Your task to perform on an android device: toggle show notifications on the lock screen Image 0: 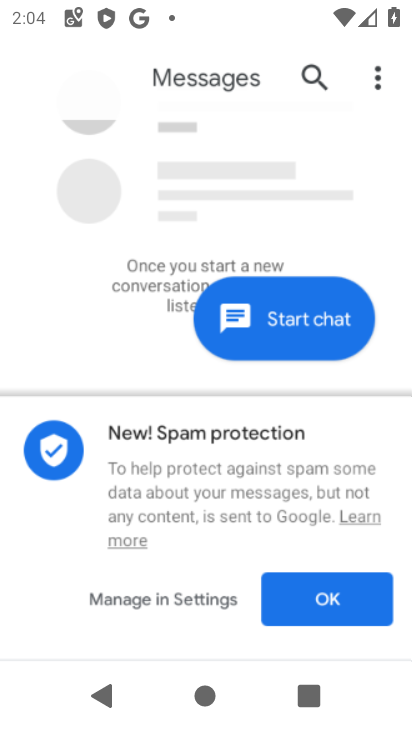
Step 0: drag from (243, 582) to (250, 234)
Your task to perform on an android device: toggle show notifications on the lock screen Image 1: 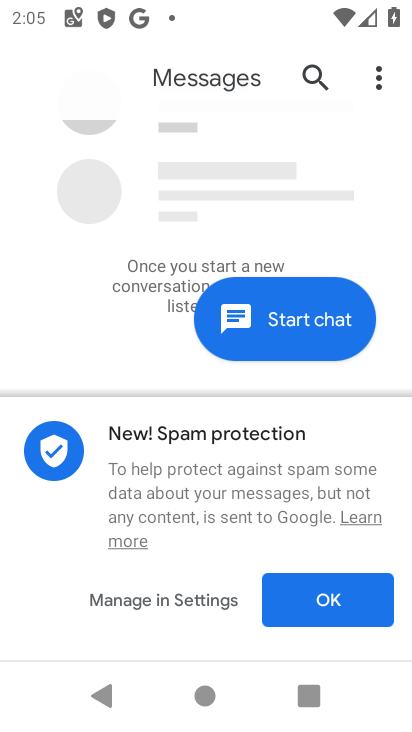
Step 1: press home button
Your task to perform on an android device: toggle show notifications on the lock screen Image 2: 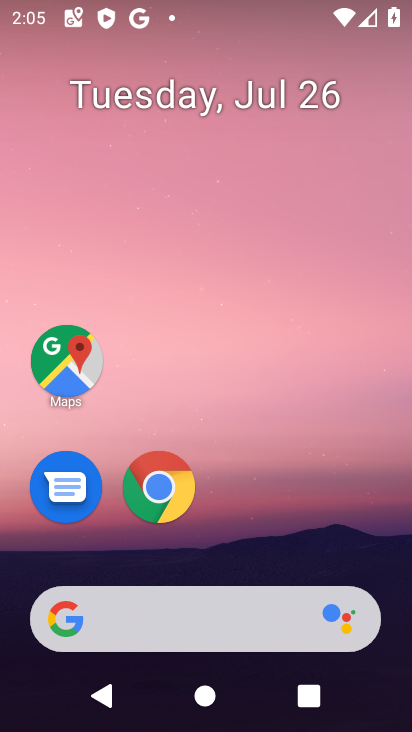
Step 2: drag from (204, 627) to (259, 245)
Your task to perform on an android device: toggle show notifications on the lock screen Image 3: 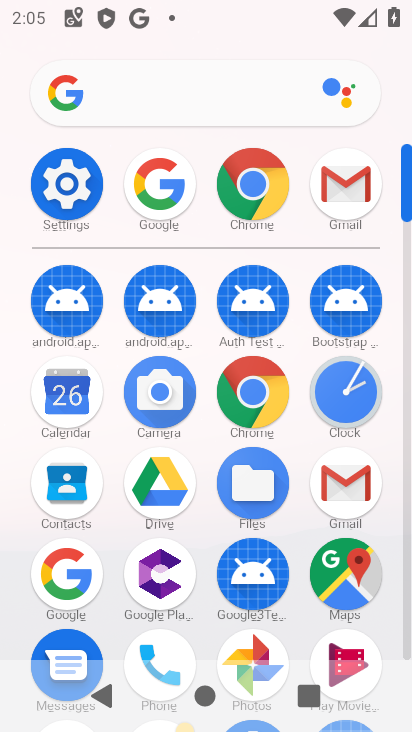
Step 3: click (86, 202)
Your task to perform on an android device: toggle show notifications on the lock screen Image 4: 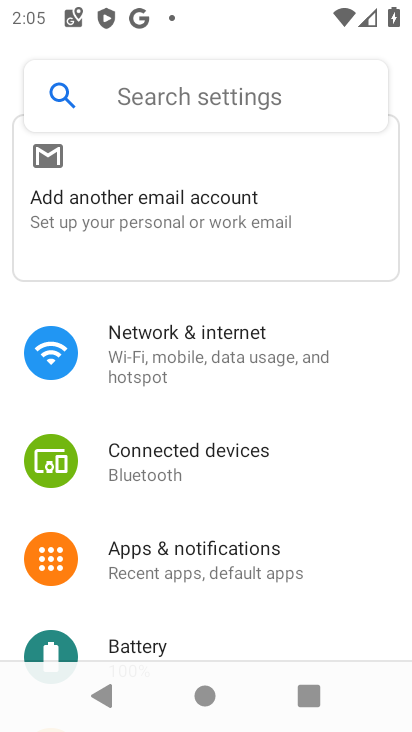
Step 4: drag from (188, 548) to (212, 403)
Your task to perform on an android device: toggle show notifications on the lock screen Image 5: 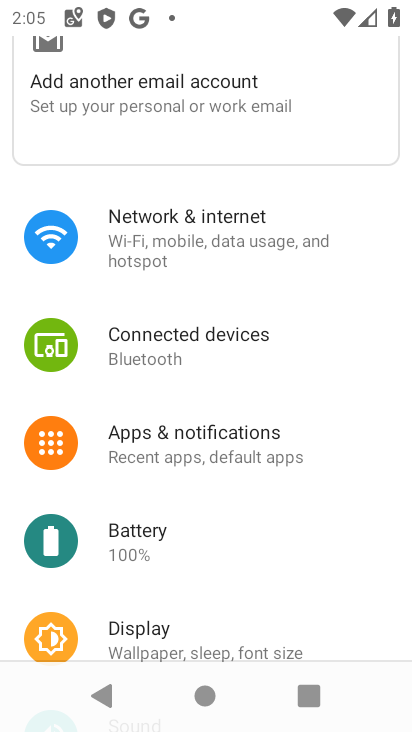
Step 5: click (244, 455)
Your task to perform on an android device: toggle show notifications on the lock screen Image 6: 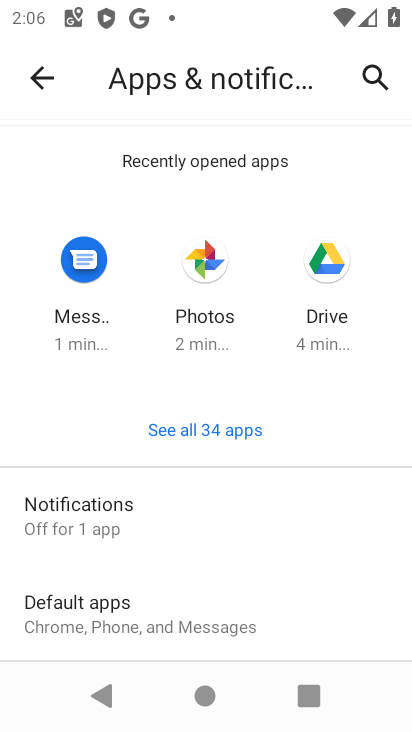
Step 6: drag from (208, 563) to (207, 357)
Your task to perform on an android device: toggle show notifications on the lock screen Image 7: 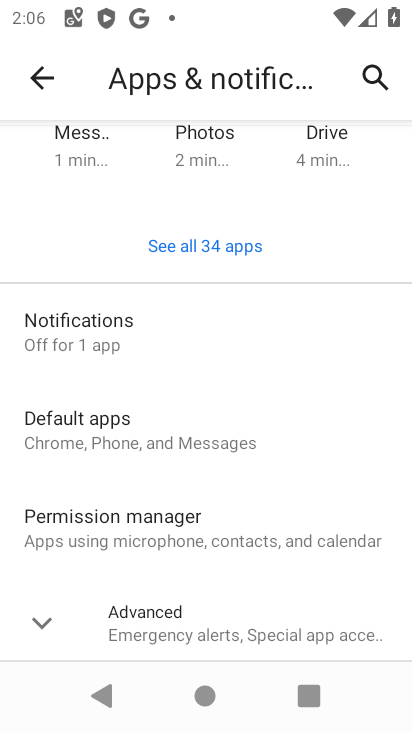
Step 7: click (137, 331)
Your task to perform on an android device: toggle show notifications on the lock screen Image 8: 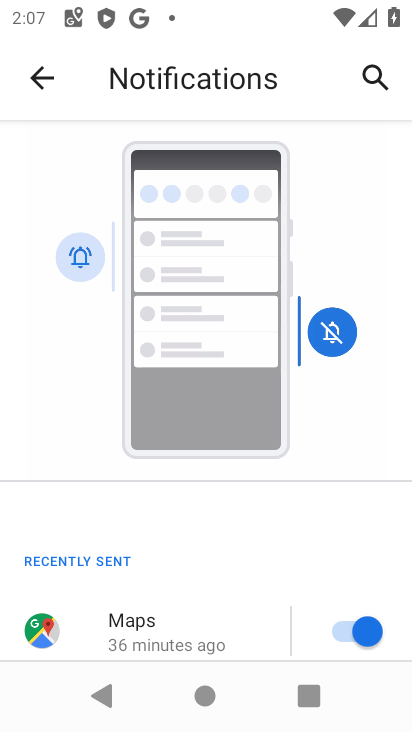
Step 8: drag from (91, 576) to (153, 155)
Your task to perform on an android device: toggle show notifications on the lock screen Image 9: 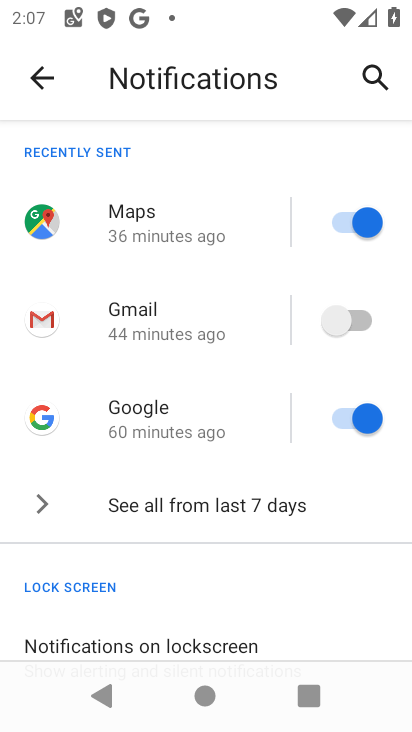
Step 9: click (192, 637)
Your task to perform on an android device: toggle show notifications on the lock screen Image 10: 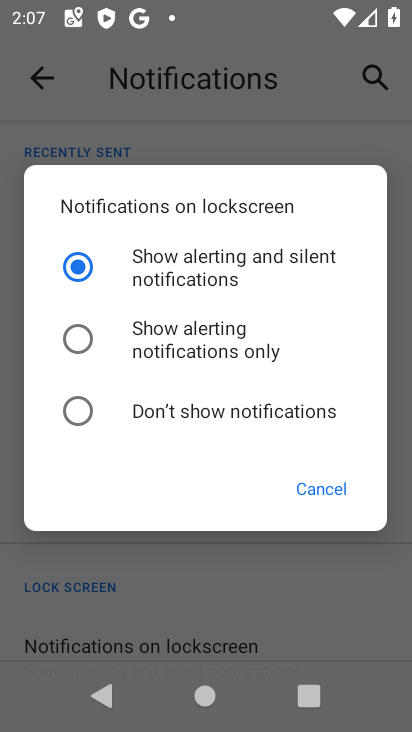
Step 10: click (234, 407)
Your task to perform on an android device: toggle show notifications on the lock screen Image 11: 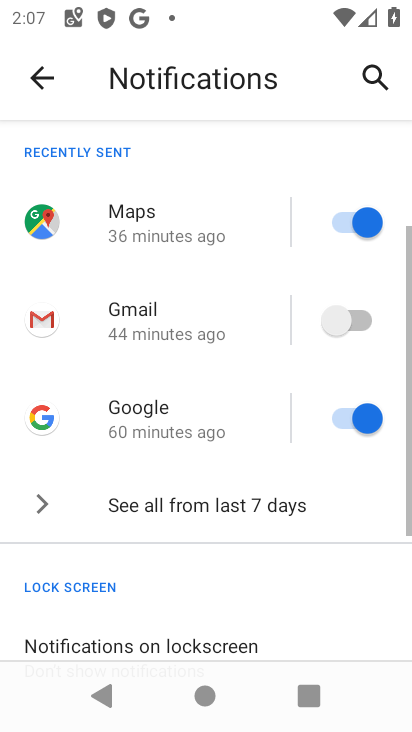
Step 11: task complete